Your task to perform on an android device: Show me the alarms in the clock app Image 0: 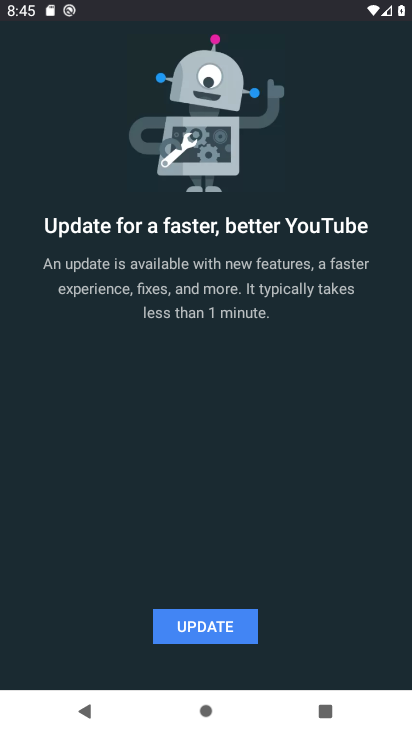
Step 0: press back button
Your task to perform on an android device: Show me the alarms in the clock app Image 1: 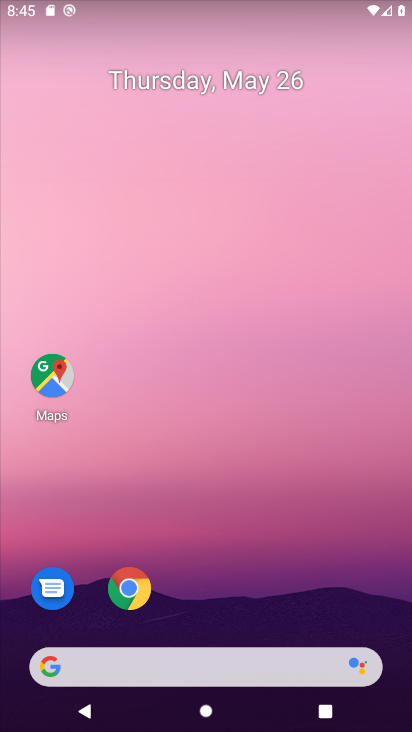
Step 1: drag from (248, 584) to (308, 9)
Your task to perform on an android device: Show me the alarms in the clock app Image 2: 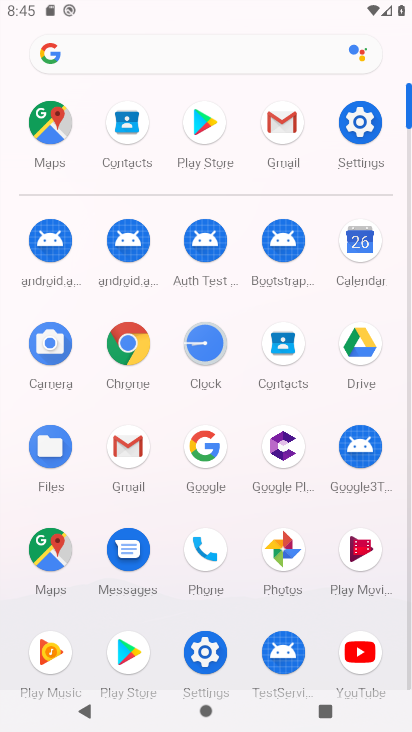
Step 2: click (200, 352)
Your task to perform on an android device: Show me the alarms in the clock app Image 3: 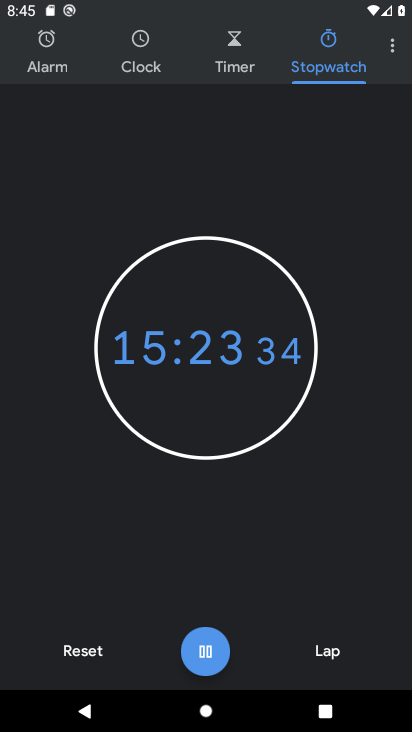
Step 3: click (35, 59)
Your task to perform on an android device: Show me the alarms in the clock app Image 4: 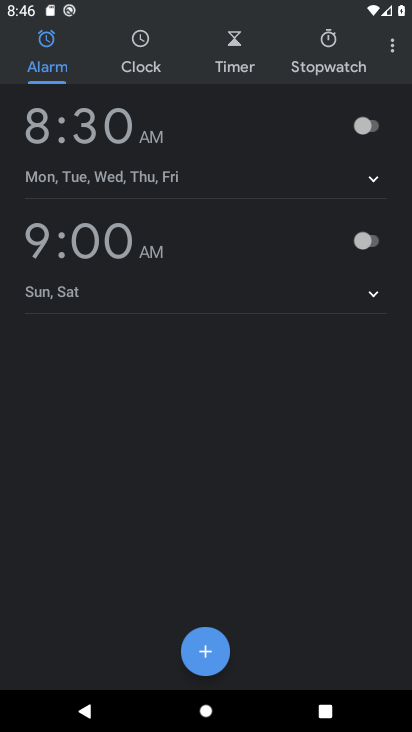
Step 4: task complete